Your task to perform on an android device: Is it going to rain this weekend? Image 0: 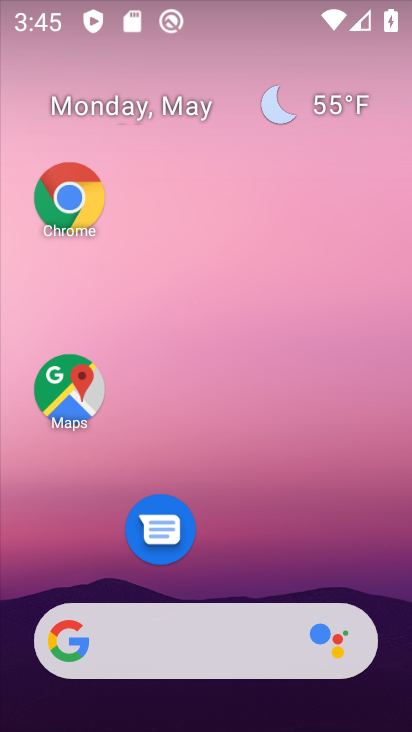
Step 0: drag from (306, 120) to (318, 33)
Your task to perform on an android device: Is it going to rain this weekend? Image 1: 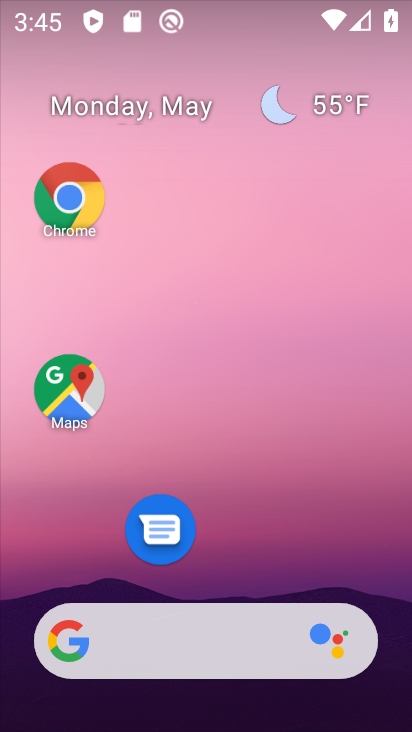
Step 1: drag from (217, 602) to (294, 134)
Your task to perform on an android device: Is it going to rain this weekend? Image 2: 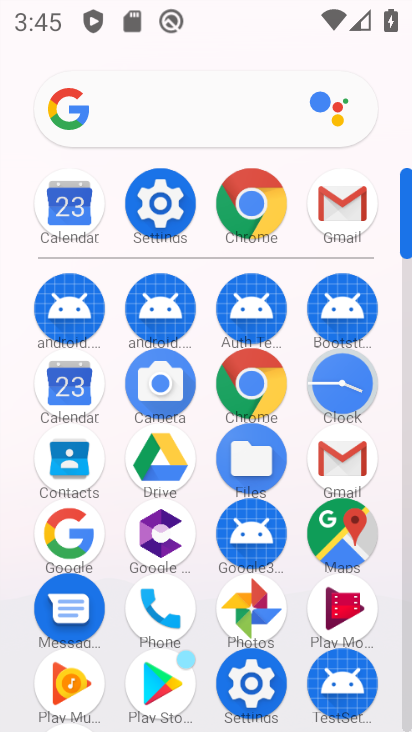
Step 2: click (71, 547)
Your task to perform on an android device: Is it going to rain this weekend? Image 3: 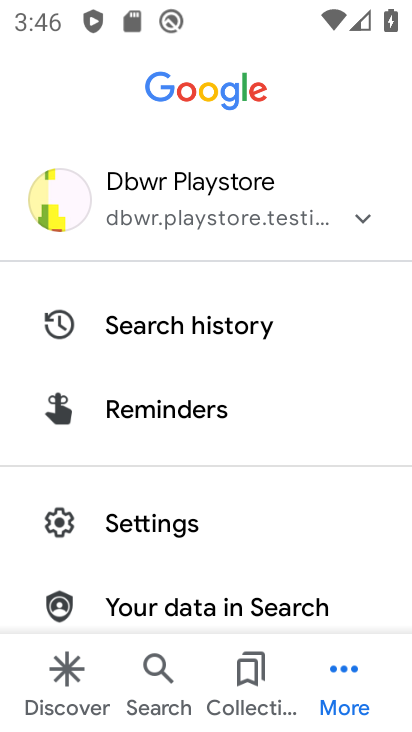
Step 3: click (52, 705)
Your task to perform on an android device: Is it going to rain this weekend? Image 4: 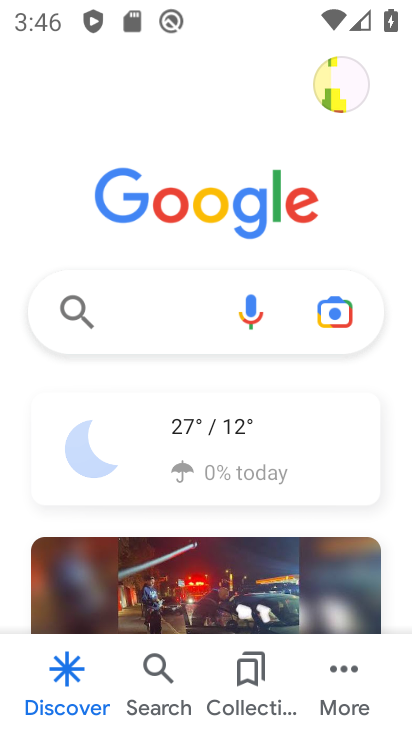
Step 4: click (157, 316)
Your task to perform on an android device: Is it going to rain this weekend? Image 5: 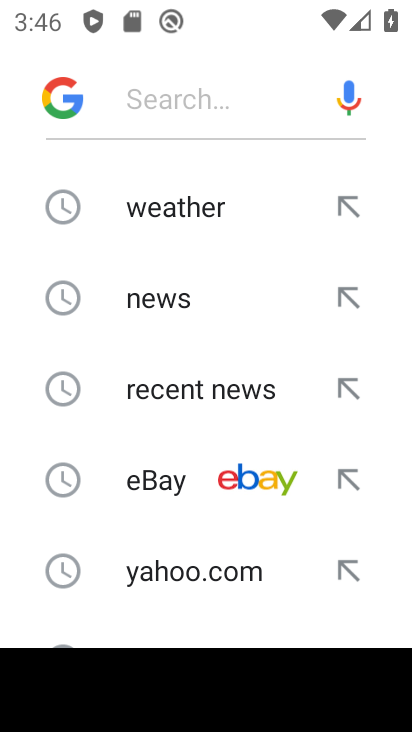
Step 5: drag from (170, 464) to (218, 317)
Your task to perform on an android device: Is it going to rain this weekend? Image 6: 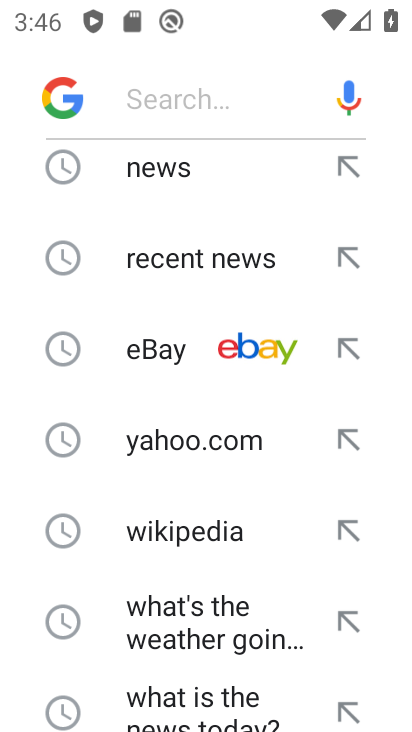
Step 6: drag from (155, 336) to (117, 639)
Your task to perform on an android device: Is it going to rain this weekend? Image 7: 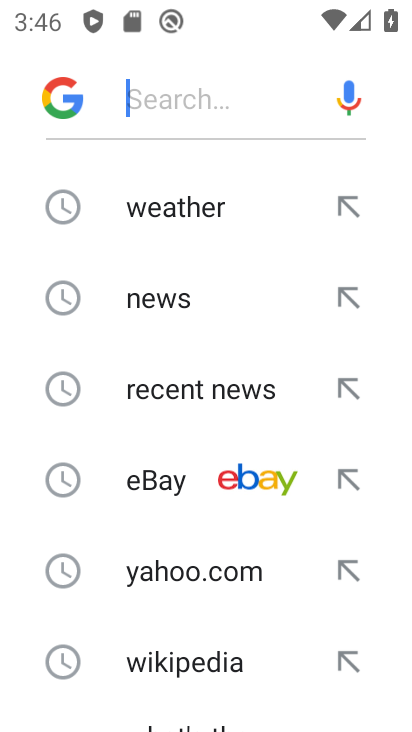
Step 7: click (192, 193)
Your task to perform on an android device: Is it going to rain this weekend? Image 8: 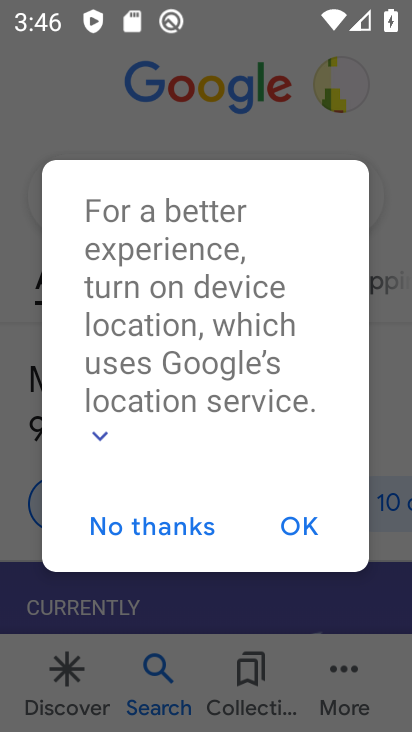
Step 8: click (306, 522)
Your task to perform on an android device: Is it going to rain this weekend? Image 9: 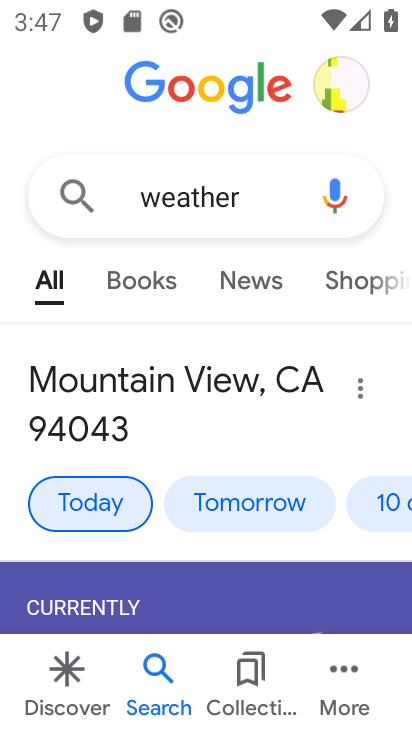
Step 9: drag from (268, 561) to (244, 410)
Your task to perform on an android device: Is it going to rain this weekend? Image 10: 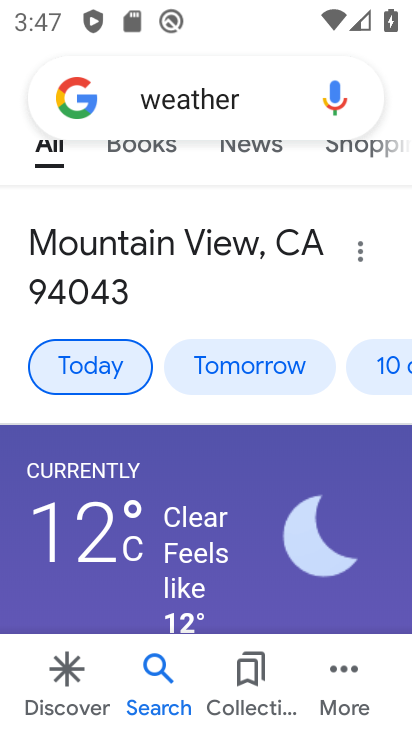
Step 10: click (389, 380)
Your task to perform on an android device: Is it going to rain this weekend? Image 11: 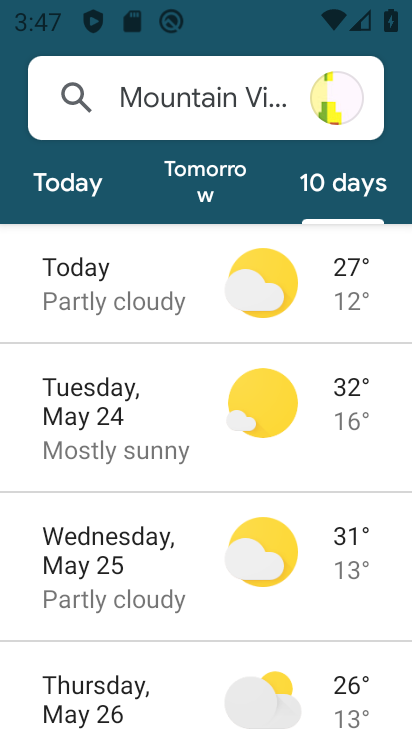
Step 11: task complete